Your task to perform on an android device: Open Google Chrome Image 0: 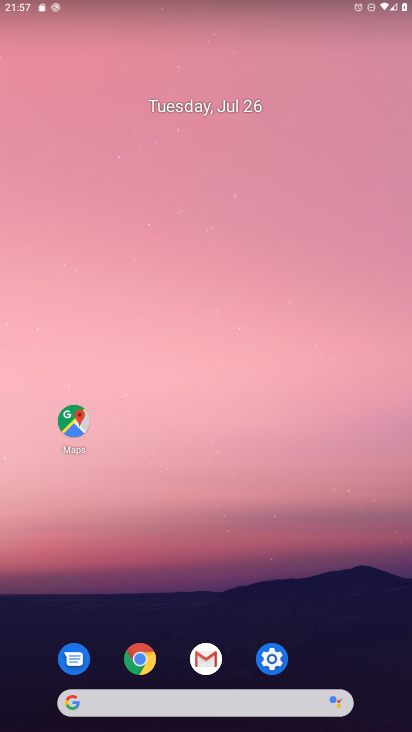
Step 0: click (153, 669)
Your task to perform on an android device: Open Google Chrome Image 1: 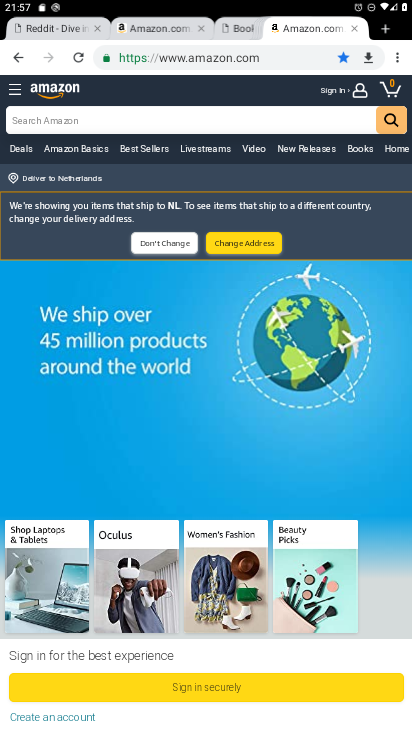
Step 1: click (385, 36)
Your task to perform on an android device: Open Google Chrome Image 2: 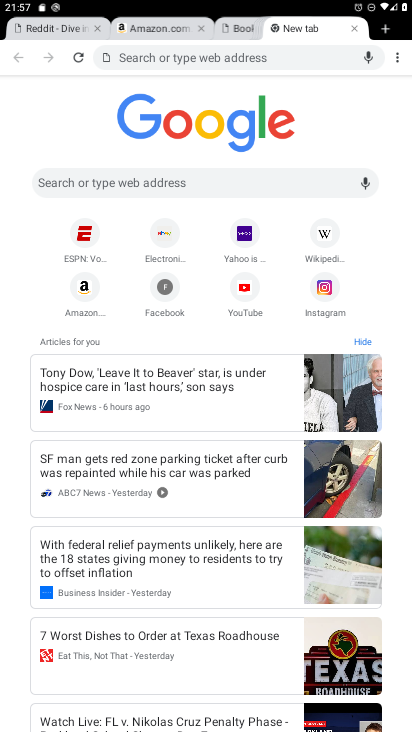
Step 2: task complete